Your task to perform on an android device: toggle notifications settings in the gmail app Image 0: 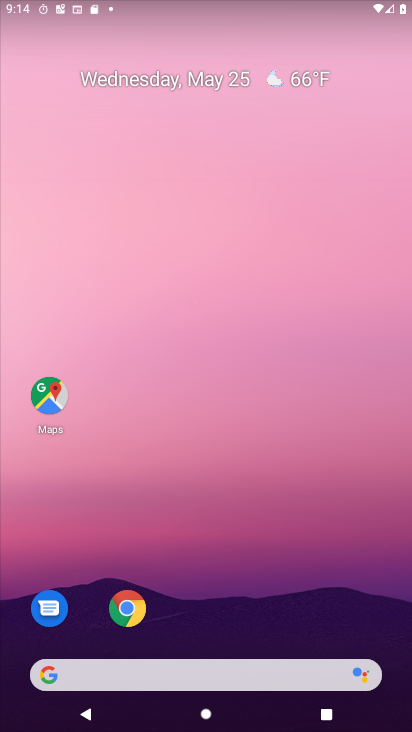
Step 0: drag from (234, 708) to (236, 192)
Your task to perform on an android device: toggle notifications settings in the gmail app Image 1: 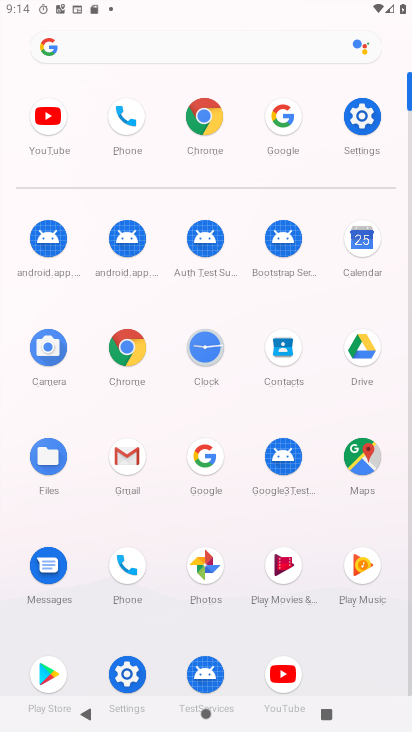
Step 1: click (127, 455)
Your task to perform on an android device: toggle notifications settings in the gmail app Image 2: 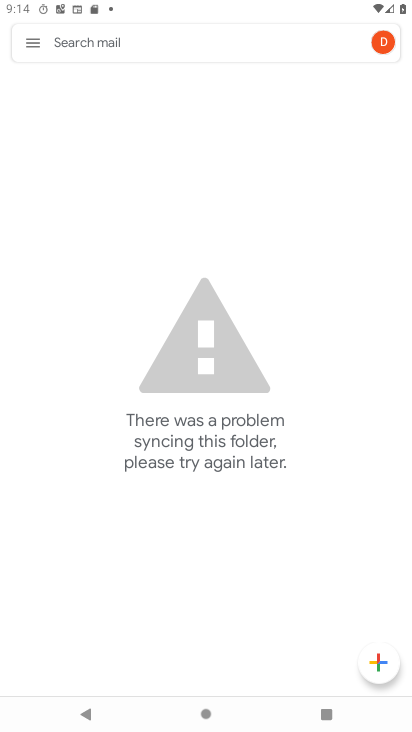
Step 2: click (36, 45)
Your task to perform on an android device: toggle notifications settings in the gmail app Image 3: 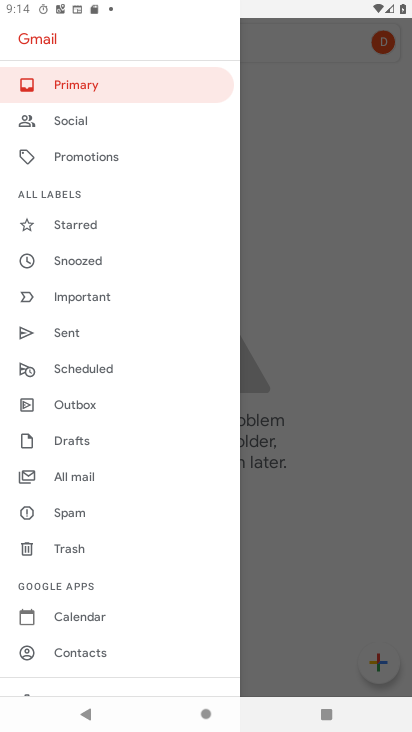
Step 3: drag from (65, 613) to (62, 275)
Your task to perform on an android device: toggle notifications settings in the gmail app Image 4: 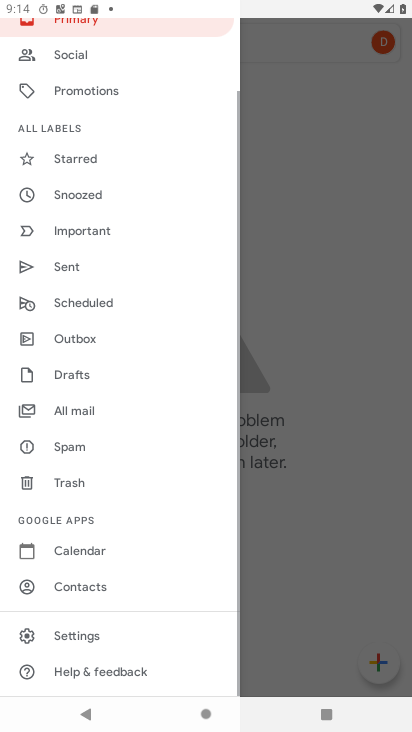
Step 4: click (82, 636)
Your task to perform on an android device: toggle notifications settings in the gmail app Image 5: 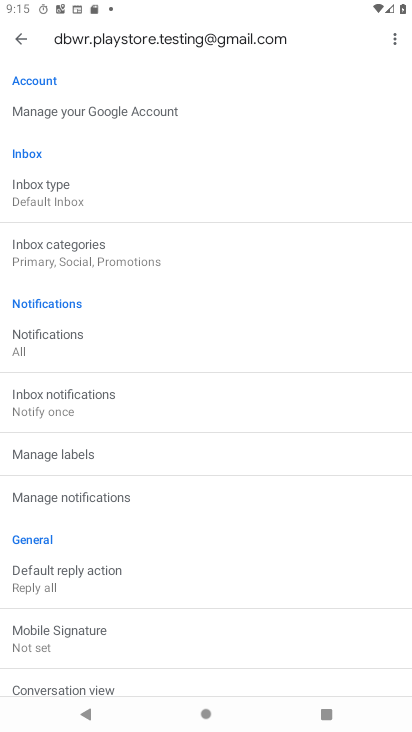
Step 5: click (41, 335)
Your task to perform on an android device: toggle notifications settings in the gmail app Image 6: 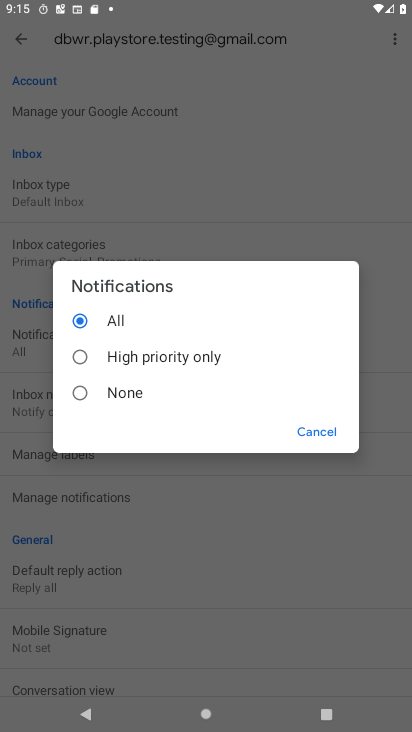
Step 6: click (82, 357)
Your task to perform on an android device: toggle notifications settings in the gmail app Image 7: 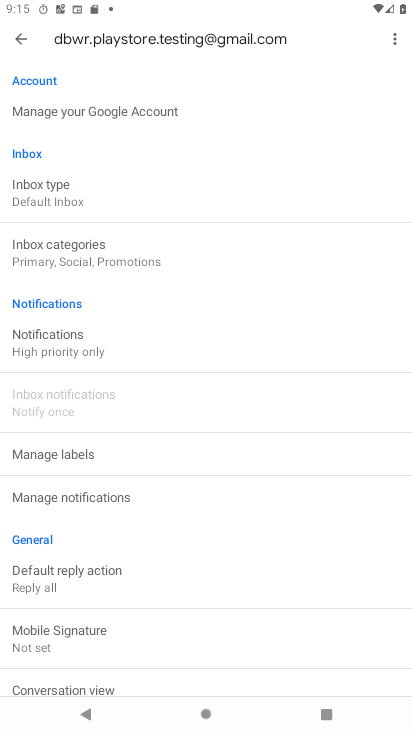
Step 7: task complete